Your task to perform on an android device: Open the settings Image 0: 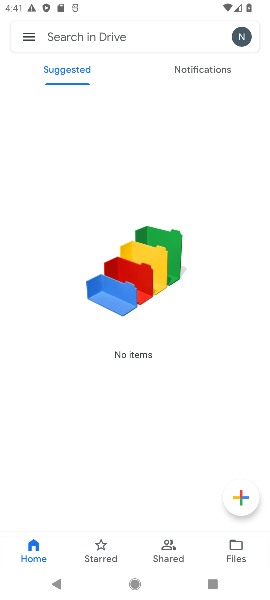
Step 0: click (142, 586)
Your task to perform on an android device: Open the settings Image 1: 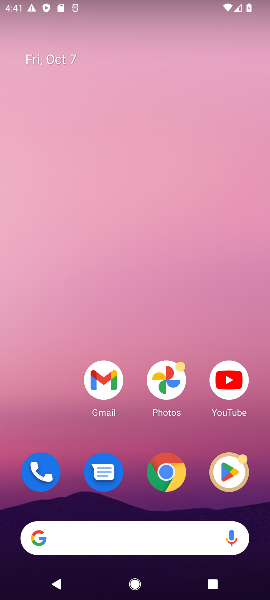
Step 1: drag from (162, 508) to (136, 227)
Your task to perform on an android device: Open the settings Image 2: 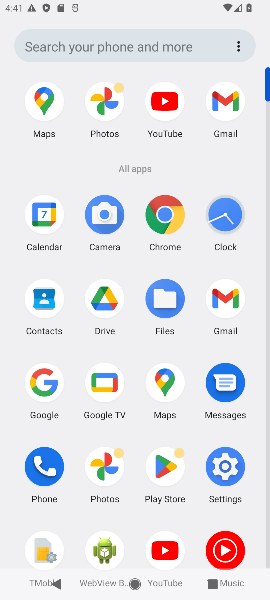
Step 2: click (223, 462)
Your task to perform on an android device: Open the settings Image 3: 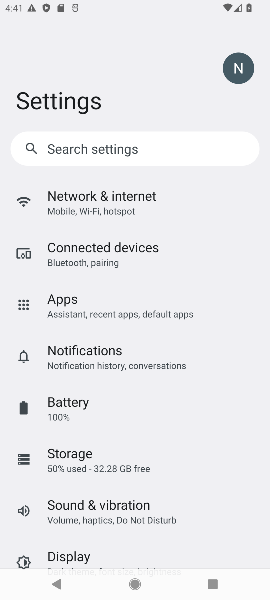
Step 3: task complete